Your task to perform on an android device: Open the phone app and click the voicemail tab. Image 0: 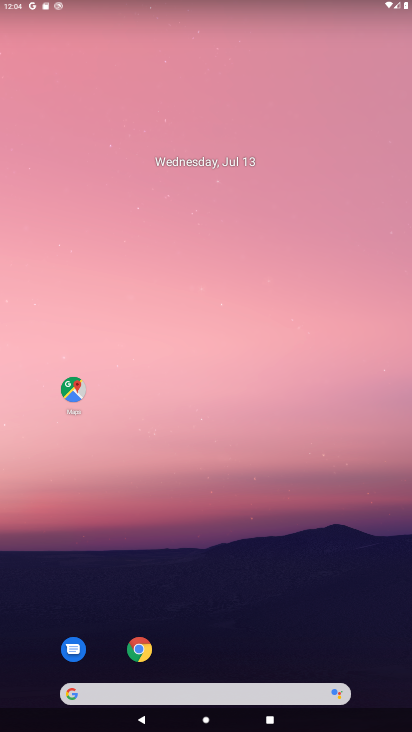
Step 0: drag from (260, 660) to (259, 280)
Your task to perform on an android device: Open the phone app and click the voicemail tab. Image 1: 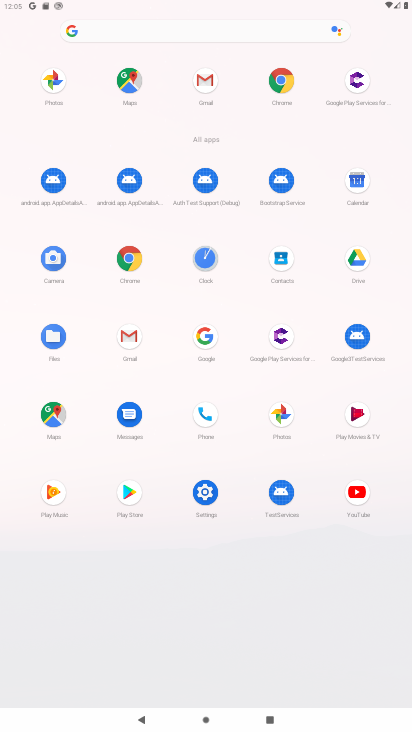
Step 1: click (201, 409)
Your task to perform on an android device: Open the phone app and click the voicemail tab. Image 2: 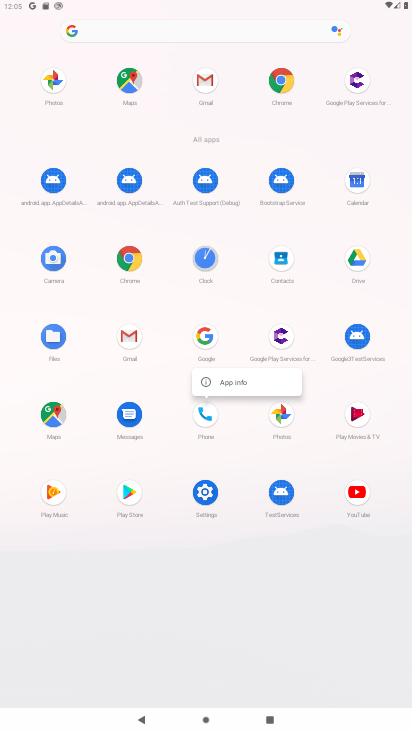
Step 2: click (241, 380)
Your task to perform on an android device: Open the phone app and click the voicemail tab. Image 3: 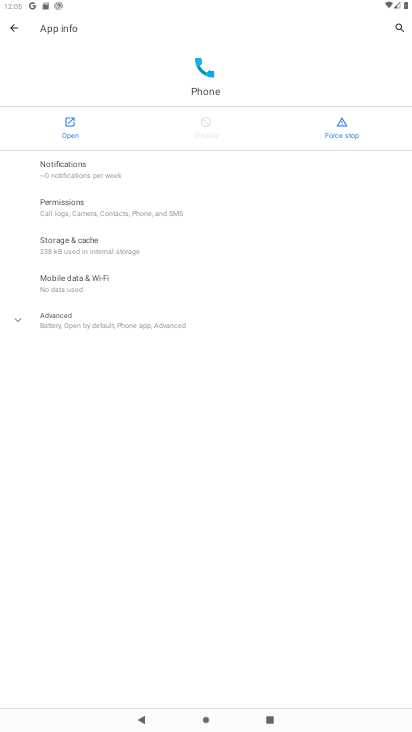
Step 3: click (64, 127)
Your task to perform on an android device: Open the phone app and click the voicemail tab. Image 4: 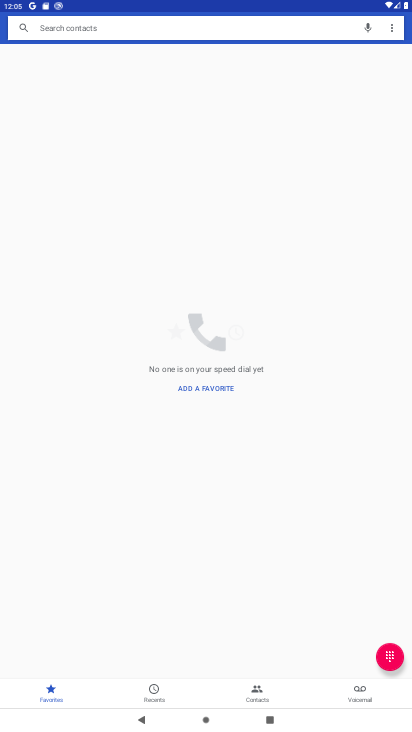
Step 4: click (356, 698)
Your task to perform on an android device: Open the phone app and click the voicemail tab. Image 5: 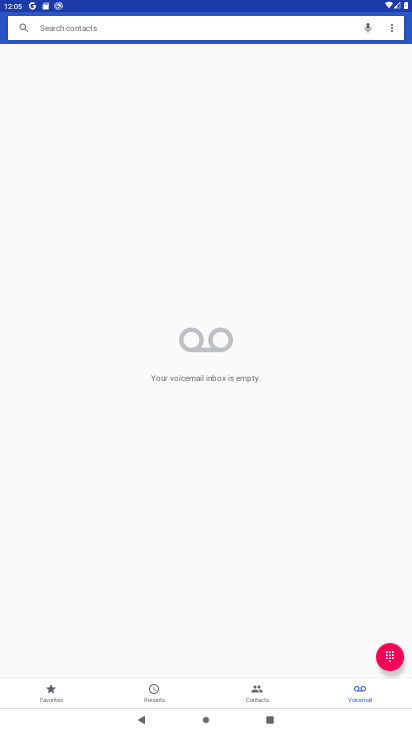
Step 5: task complete